Your task to perform on an android device: check data usage Image 0: 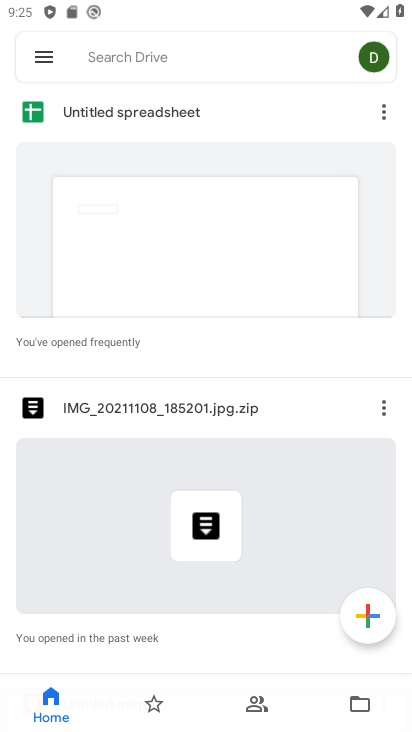
Step 0: press home button
Your task to perform on an android device: check data usage Image 1: 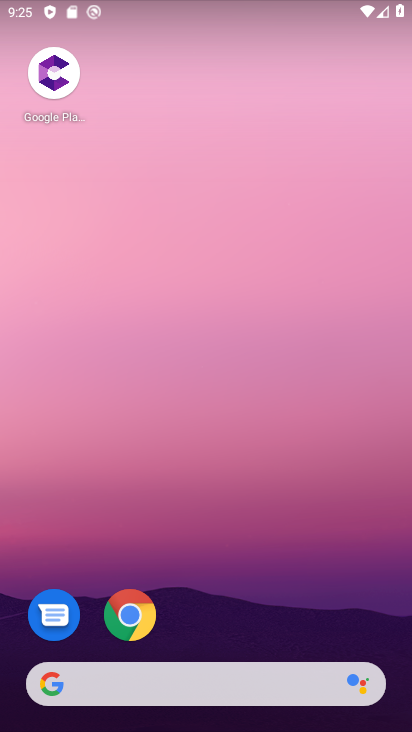
Step 1: drag from (213, 577) to (232, 29)
Your task to perform on an android device: check data usage Image 2: 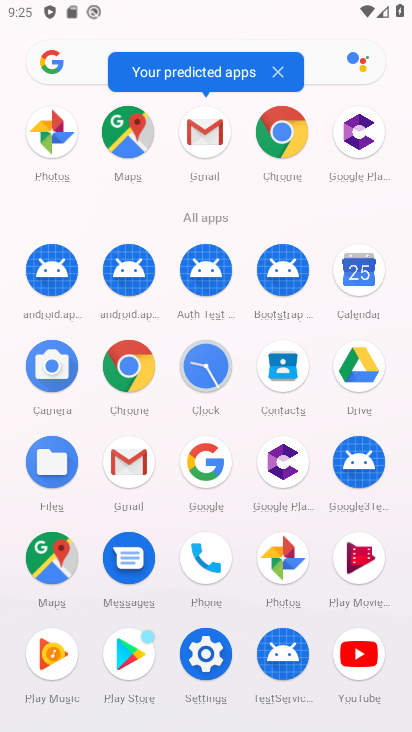
Step 2: click (209, 643)
Your task to perform on an android device: check data usage Image 3: 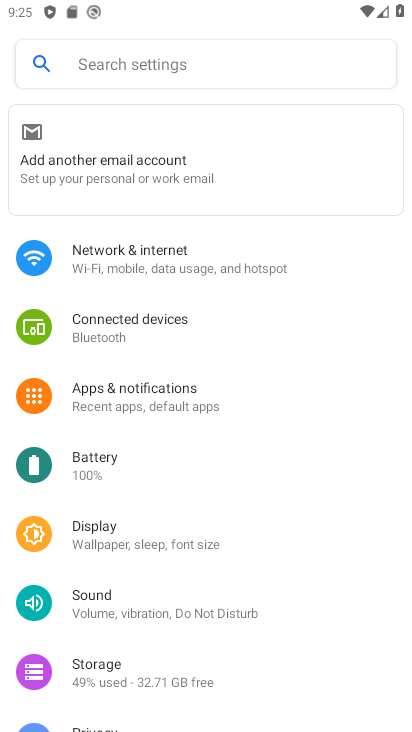
Step 3: click (216, 260)
Your task to perform on an android device: check data usage Image 4: 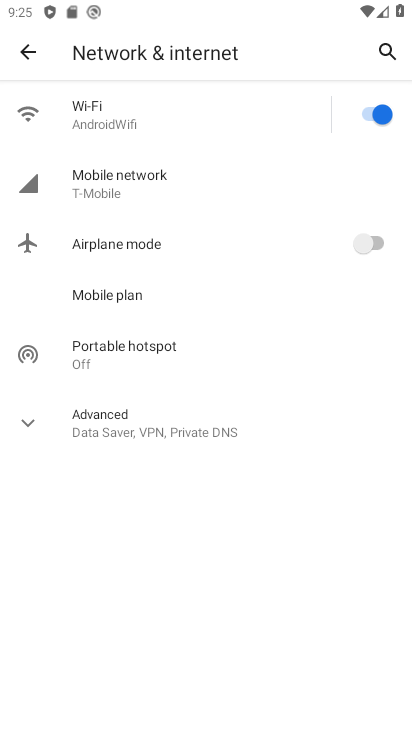
Step 4: click (216, 179)
Your task to perform on an android device: check data usage Image 5: 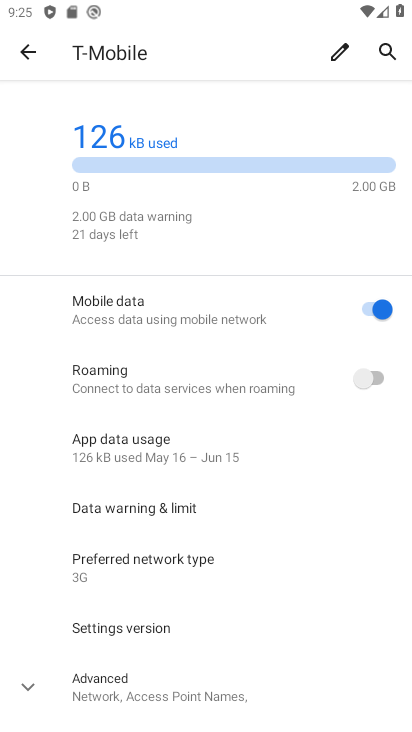
Step 5: task complete